Your task to perform on an android device: turn on the 12-hour format for clock Image 0: 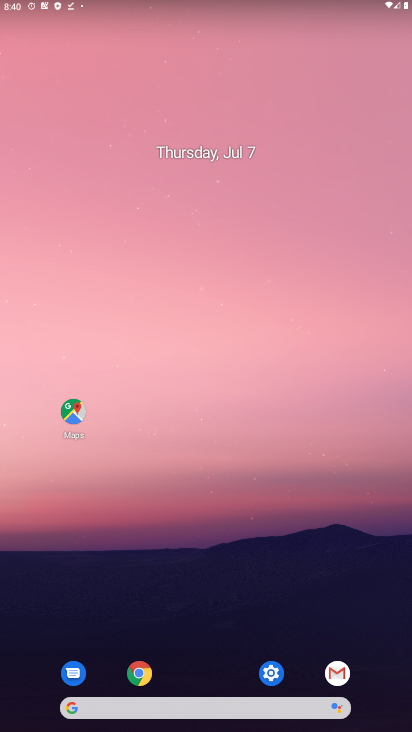
Step 0: drag from (214, 721) to (158, 188)
Your task to perform on an android device: turn on the 12-hour format for clock Image 1: 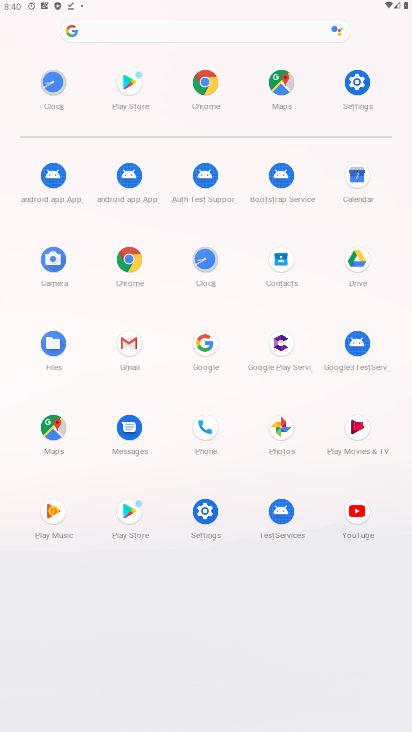
Step 1: click (207, 272)
Your task to perform on an android device: turn on the 12-hour format for clock Image 2: 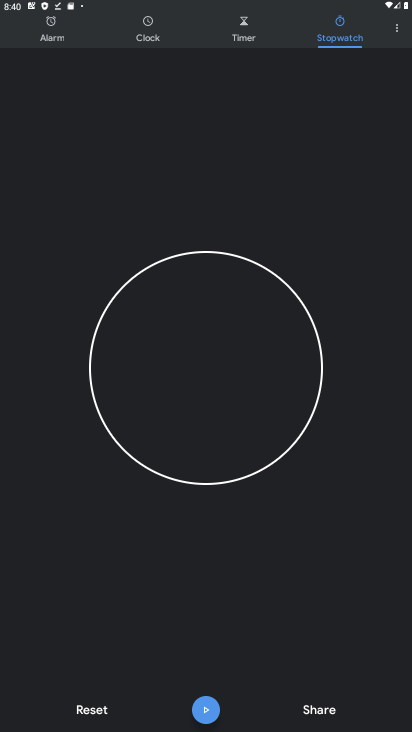
Step 2: click (400, 37)
Your task to perform on an android device: turn on the 12-hour format for clock Image 3: 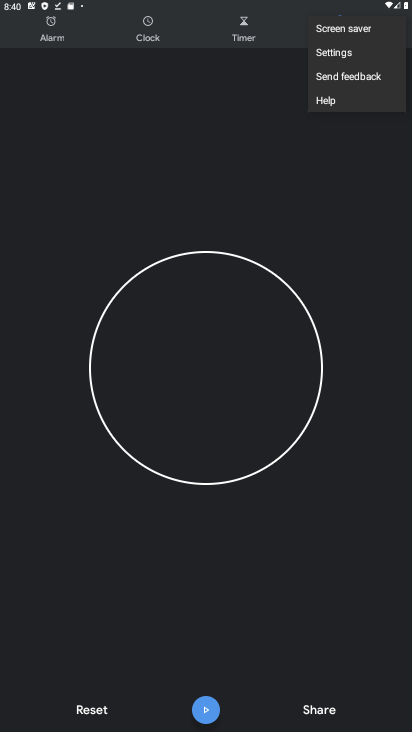
Step 3: click (336, 55)
Your task to perform on an android device: turn on the 12-hour format for clock Image 4: 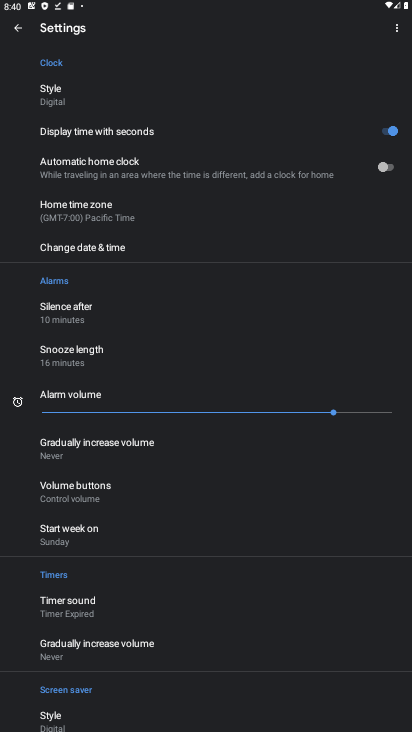
Step 4: click (71, 252)
Your task to perform on an android device: turn on the 12-hour format for clock Image 5: 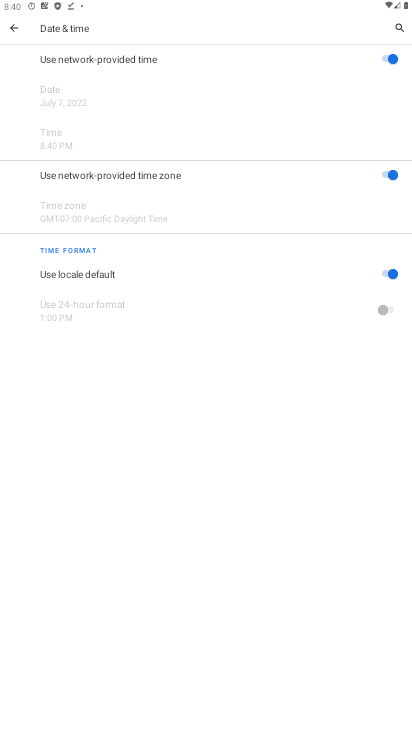
Step 5: click (380, 271)
Your task to perform on an android device: turn on the 12-hour format for clock Image 6: 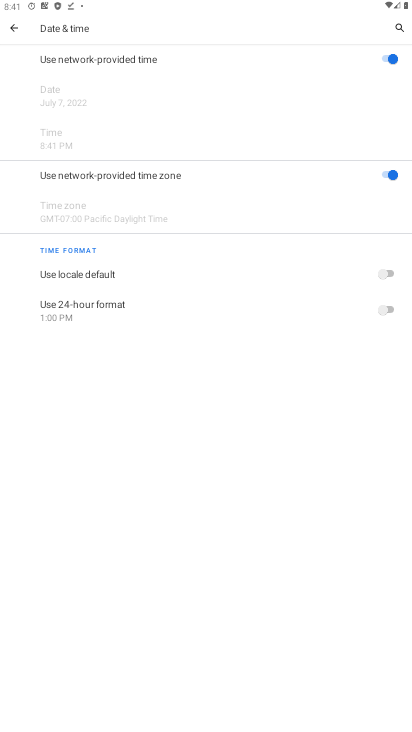
Step 6: task complete